Your task to perform on an android device: turn on the 24-hour format for clock Image 0: 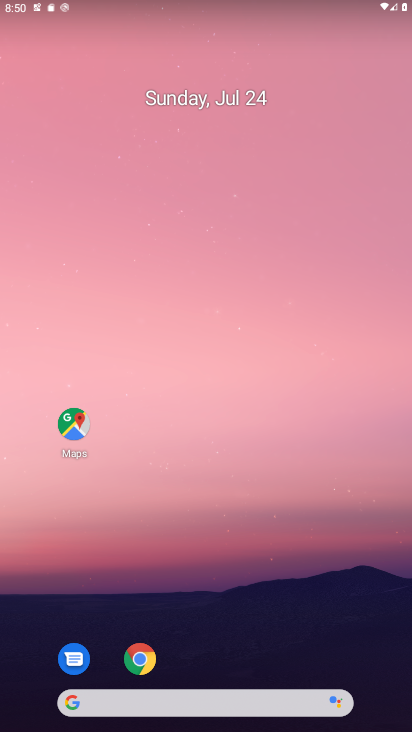
Step 0: drag from (215, 720) to (215, 275)
Your task to perform on an android device: turn on the 24-hour format for clock Image 1: 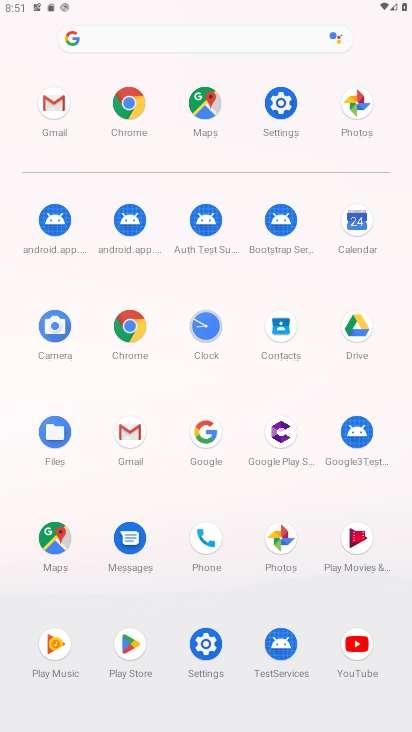
Step 1: click (199, 333)
Your task to perform on an android device: turn on the 24-hour format for clock Image 2: 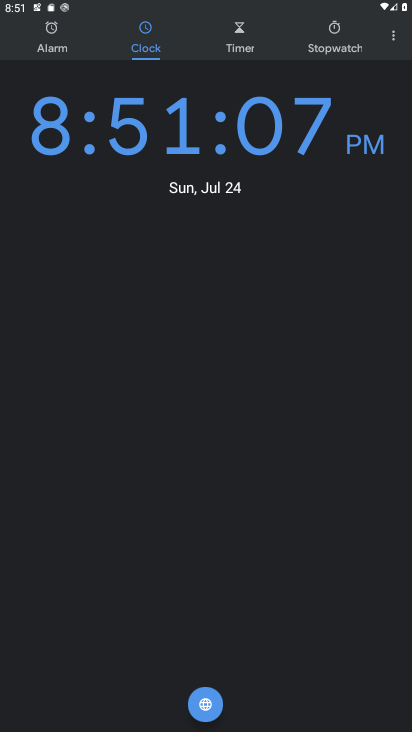
Step 2: click (393, 42)
Your task to perform on an android device: turn on the 24-hour format for clock Image 3: 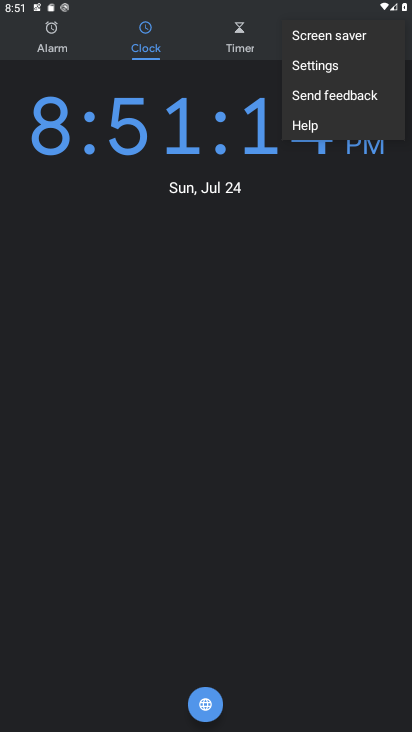
Step 3: click (322, 64)
Your task to perform on an android device: turn on the 24-hour format for clock Image 4: 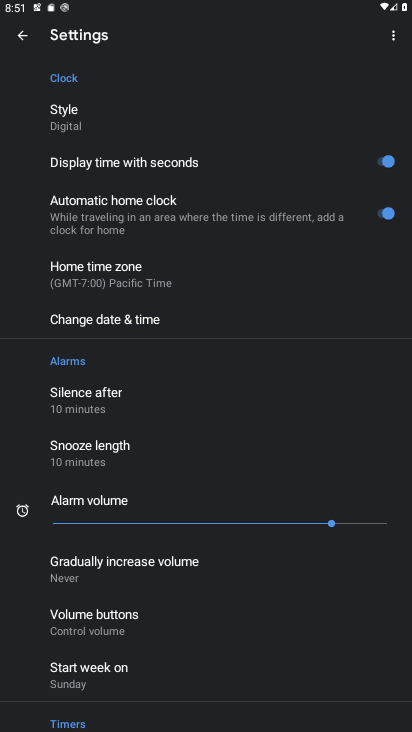
Step 4: click (107, 321)
Your task to perform on an android device: turn on the 24-hour format for clock Image 5: 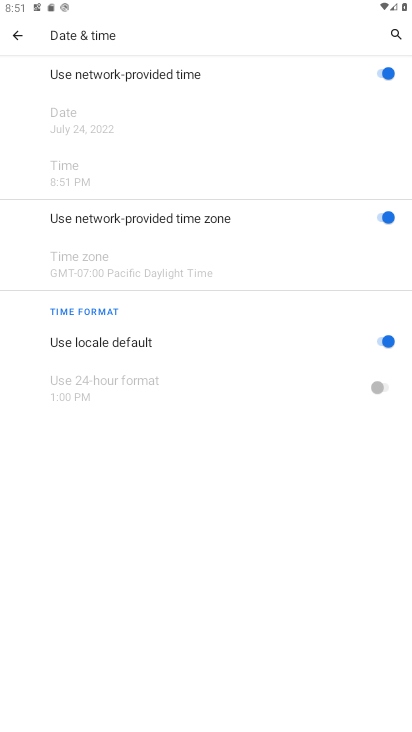
Step 5: click (384, 342)
Your task to perform on an android device: turn on the 24-hour format for clock Image 6: 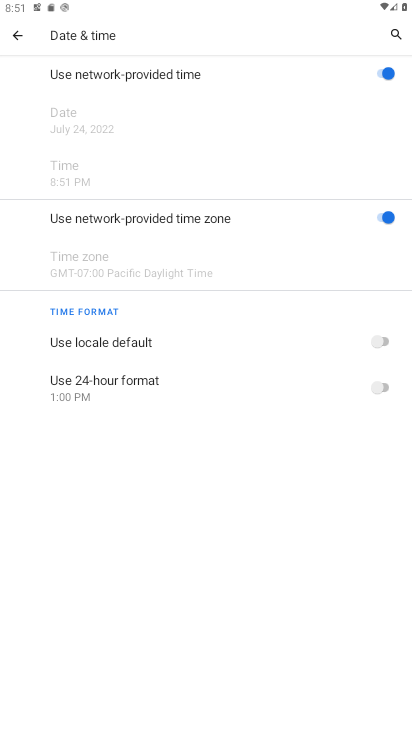
Step 6: click (384, 389)
Your task to perform on an android device: turn on the 24-hour format for clock Image 7: 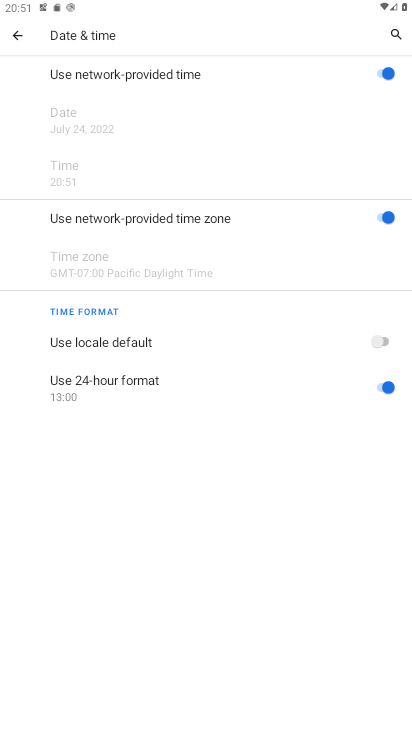
Step 7: task complete